Your task to perform on an android device: Go to Android settings Image 0: 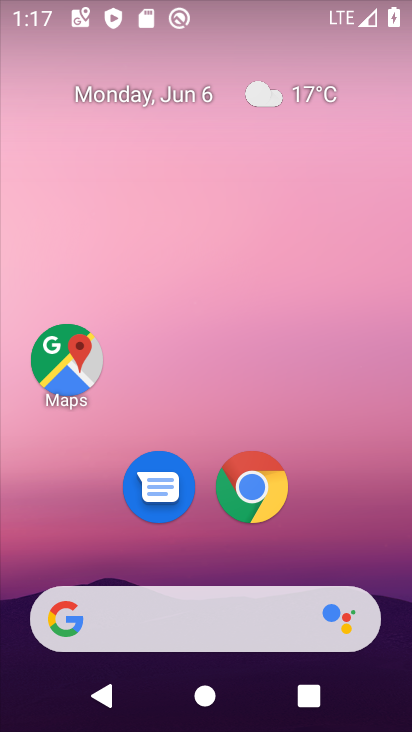
Step 0: drag from (199, 513) to (248, 130)
Your task to perform on an android device: Go to Android settings Image 1: 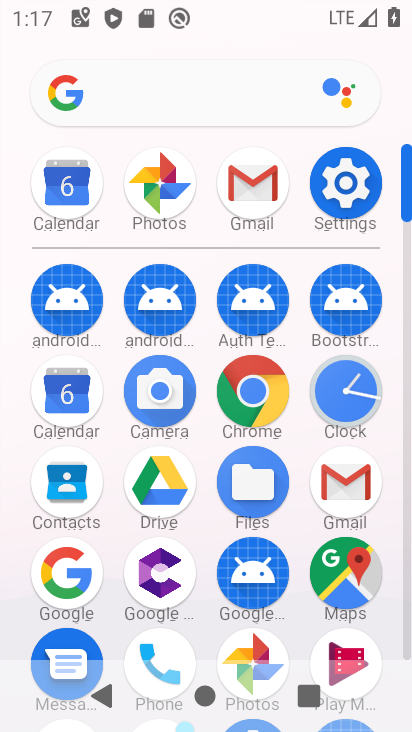
Step 1: click (348, 183)
Your task to perform on an android device: Go to Android settings Image 2: 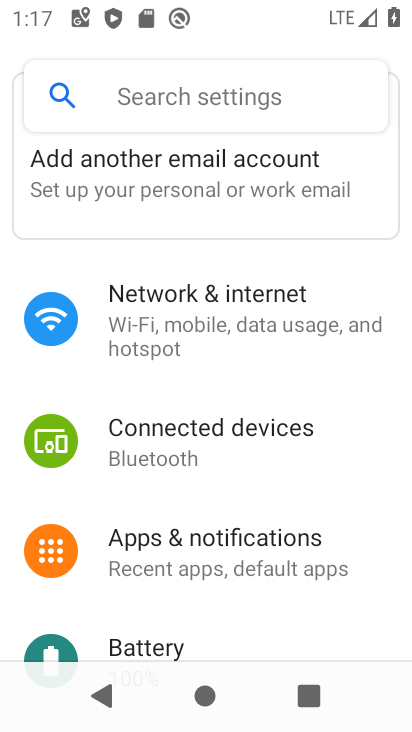
Step 2: drag from (152, 627) to (254, 115)
Your task to perform on an android device: Go to Android settings Image 3: 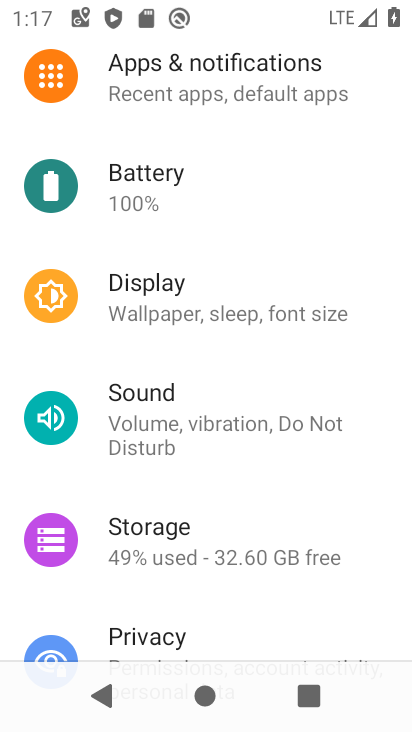
Step 3: drag from (188, 593) to (280, 57)
Your task to perform on an android device: Go to Android settings Image 4: 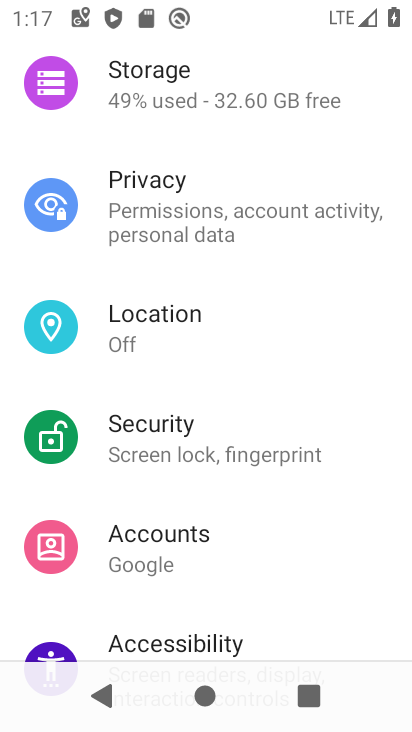
Step 4: drag from (292, 574) to (348, 45)
Your task to perform on an android device: Go to Android settings Image 5: 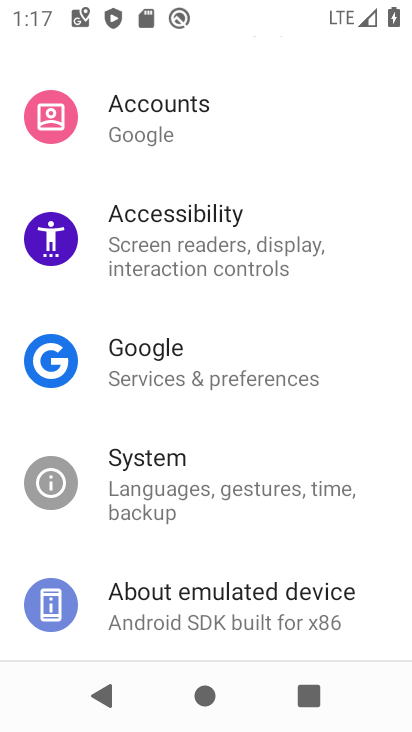
Step 5: drag from (207, 597) to (254, 154)
Your task to perform on an android device: Go to Android settings Image 6: 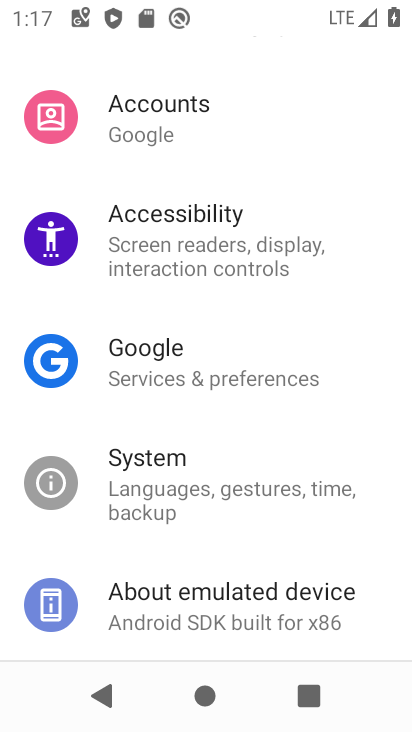
Step 6: click (179, 598)
Your task to perform on an android device: Go to Android settings Image 7: 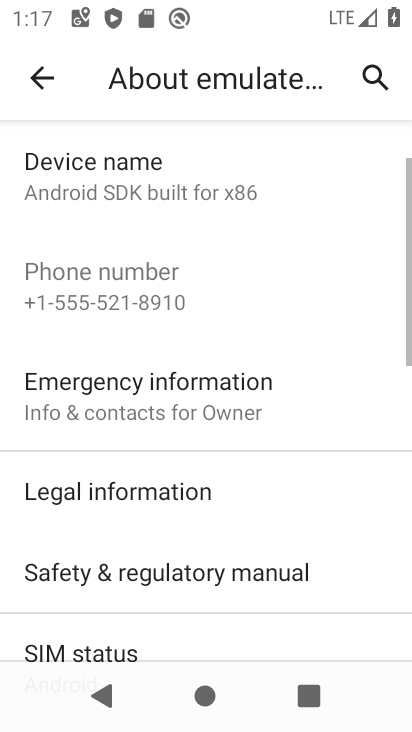
Step 7: task complete